Your task to perform on an android device: What's on my calendar today? Image 0: 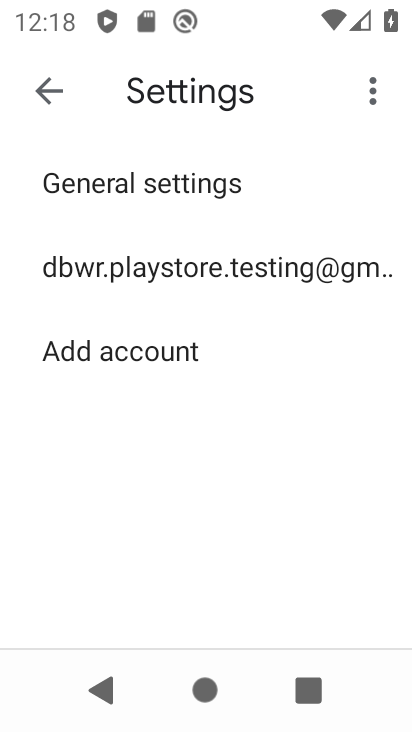
Step 0: press home button
Your task to perform on an android device: What's on my calendar today? Image 1: 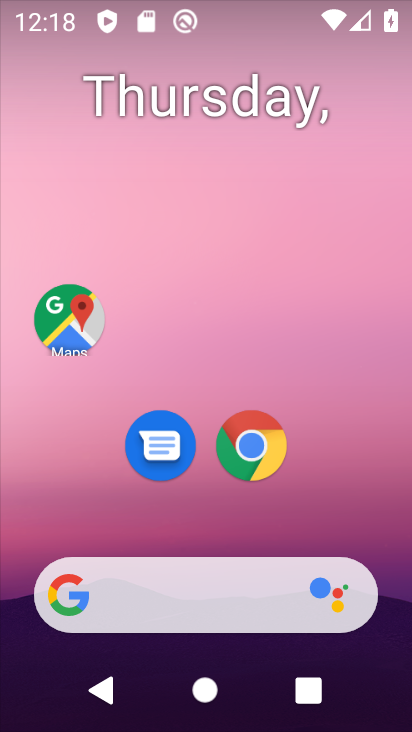
Step 1: drag from (376, 537) to (311, 106)
Your task to perform on an android device: What's on my calendar today? Image 2: 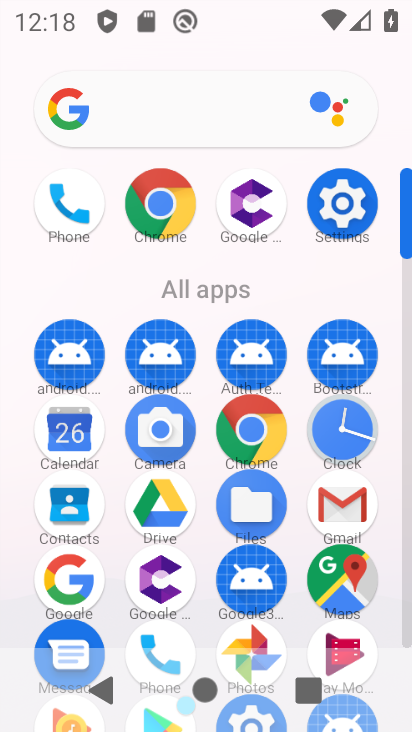
Step 2: click (60, 434)
Your task to perform on an android device: What's on my calendar today? Image 3: 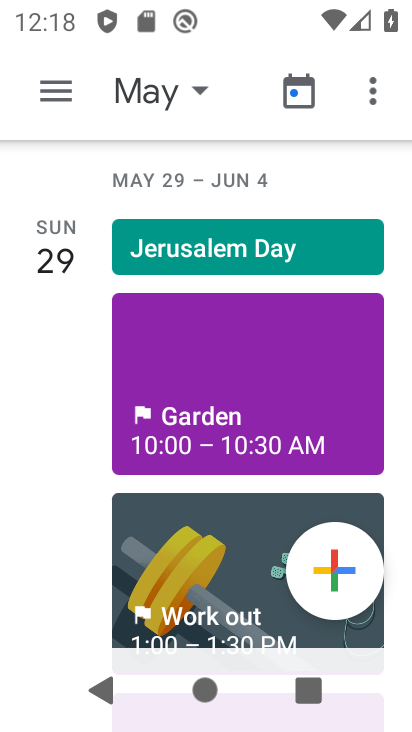
Step 3: click (151, 96)
Your task to perform on an android device: What's on my calendar today? Image 4: 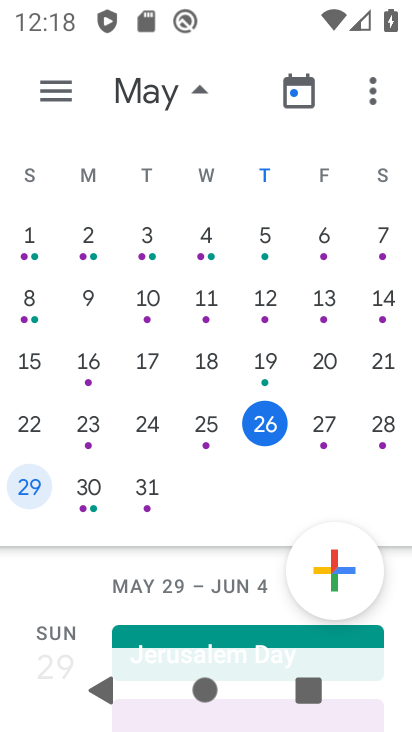
Step 4: click (262, 435)
Your task to perform on an android device: What's on my calendar today? Image 5: 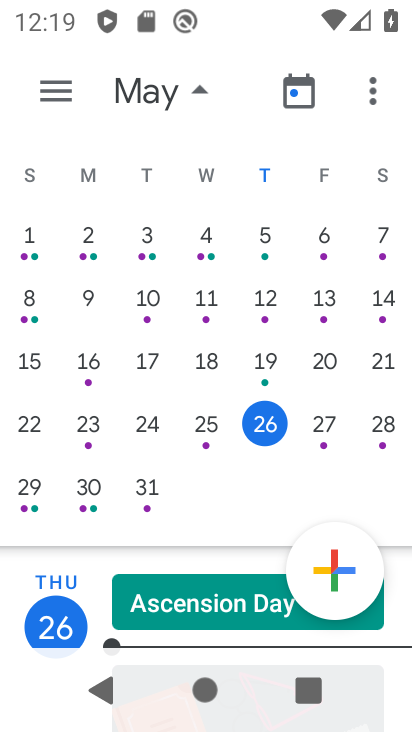
Step 5: task complete